Your task to perform on an android device: Open the stopwatch Image 0: 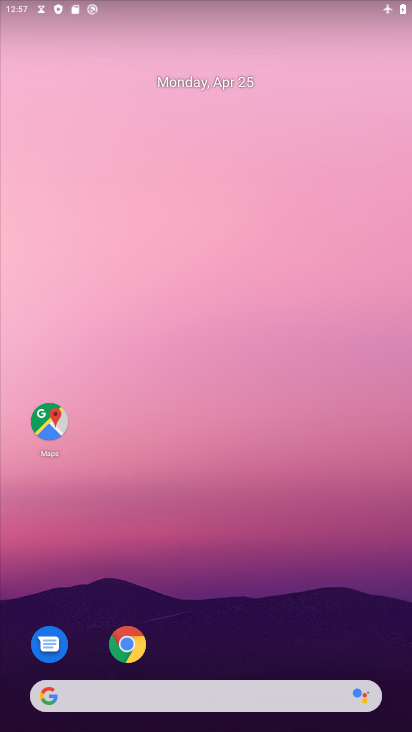
Step 0: drag from (380, 500) to (390, 20)
Your task to perform on an android device: Open the stopwatch Image 1: 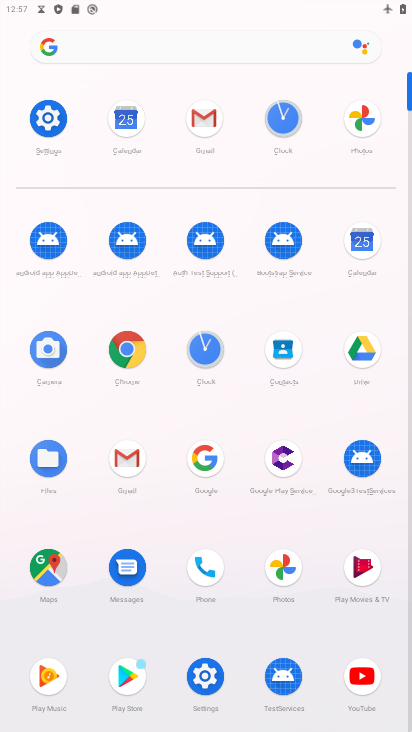
Step 1: click (289, 119)
Your task to perform on an android device: Open the stopwatch Image 2: 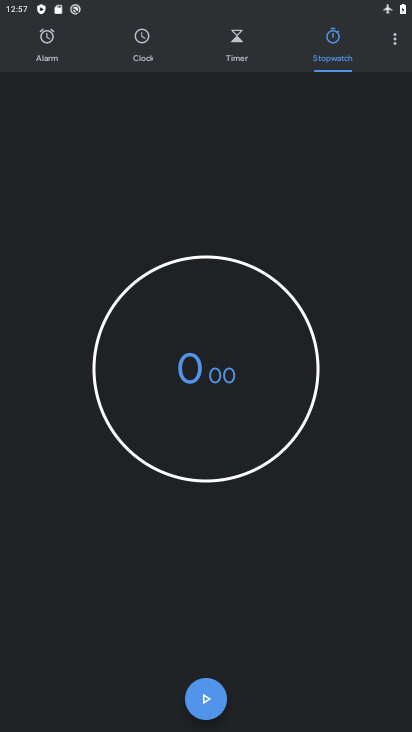
Step 2: task complete